Your task to perform on an android device: change alarm snooze length Image 0: 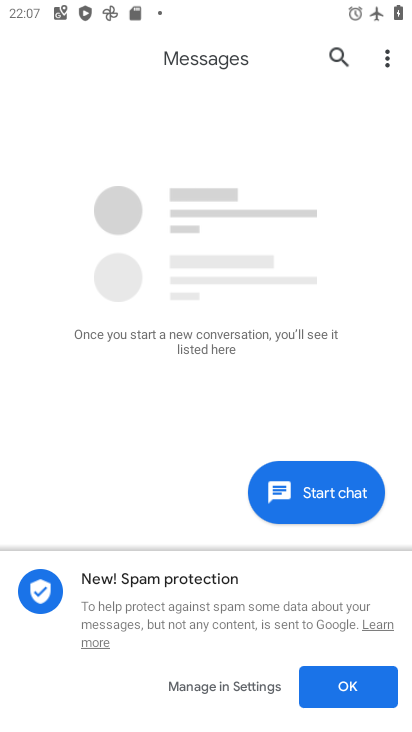
Step 0: press home button
Your task to perform on an android device: change alarm snooze length Image 1: 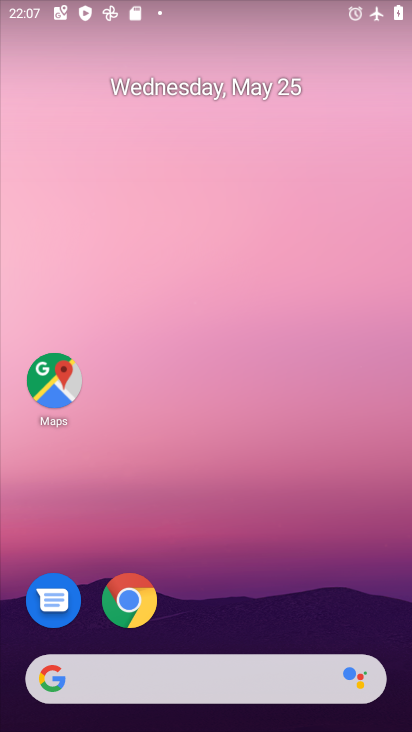
Step 1: drag from (327, 414) to (236, 50)
Your task to perform on an android device: change alarm snooze length Image 2: 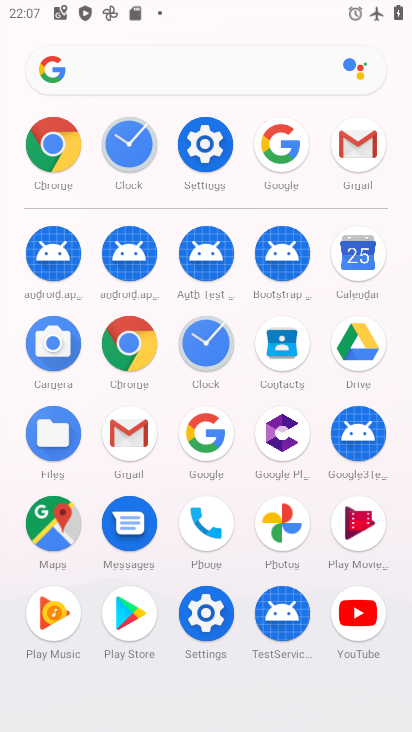
Step 2: click (207, 352)
Your task to perform on an android device: change alarm snooze length Image 3: 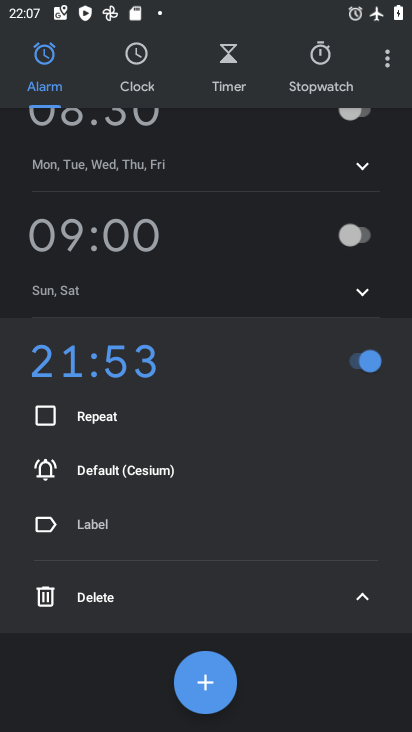
Step 3: task complete